Your task to perform on an android device: Go to Android settings Image 0: 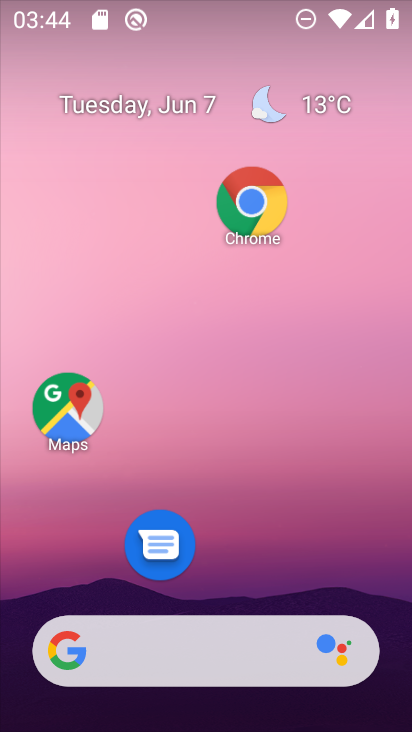
Step 0: drag from (239, 543) to (272, 262)
Your task to perform on an android device: Go to Android settings Image 1: 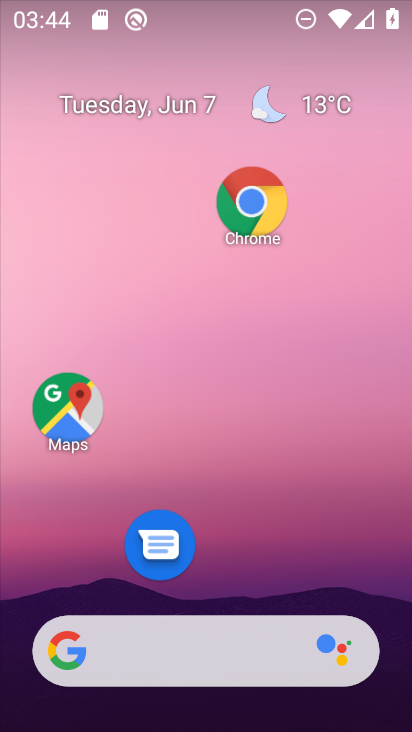
Step 1: drag from (263, 559) to (296, 133)
Your task to perform on an android device: Go to Android settings Image 2: 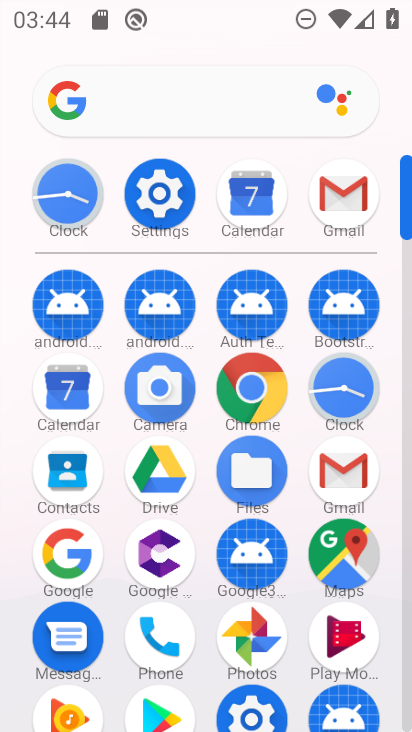
Step 2: click (151, 188)
Your task to perform on an android device: Go to Android settings Image 3: 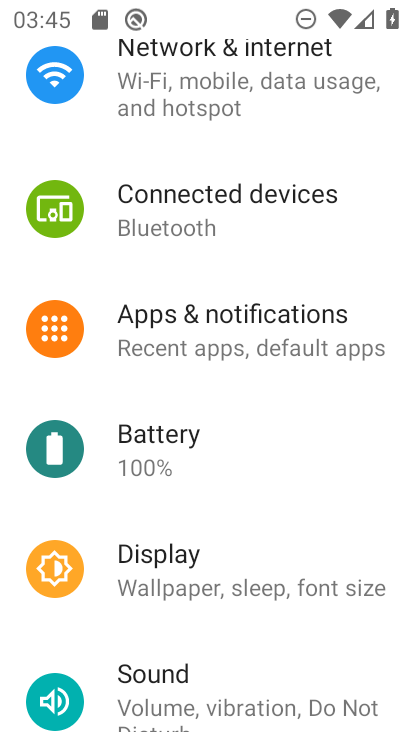
Step 3: task complete